Your task to perform on an android device: add a contact Image 0: 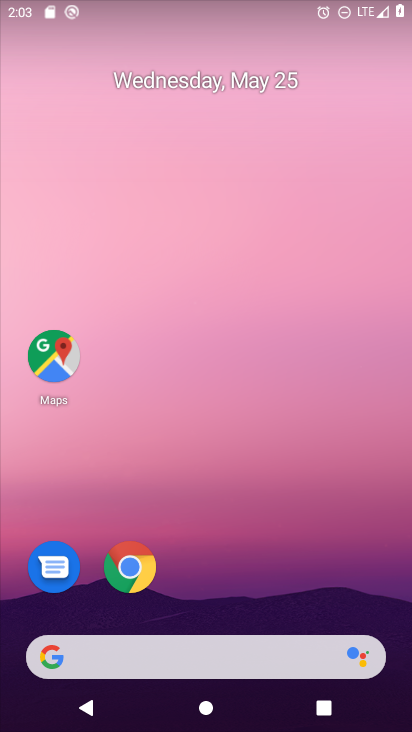
Step 0: drag from (395, 637) to (385, 315)
Your task to perform on an android device: add a contact Image 1: 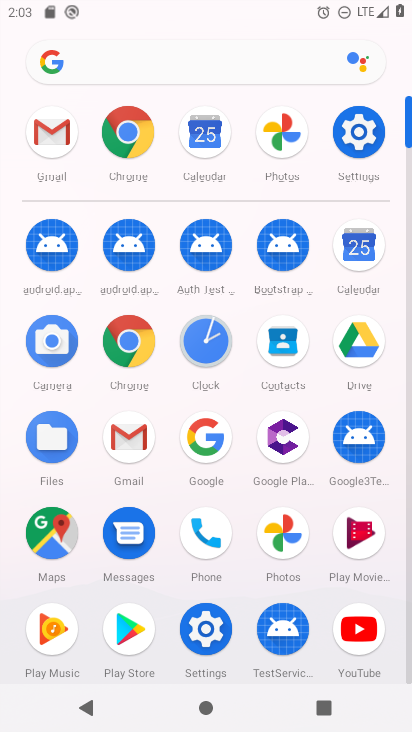
Step 1: click (286, 361)
Your task to perform on an android device: add a contact Image 2: 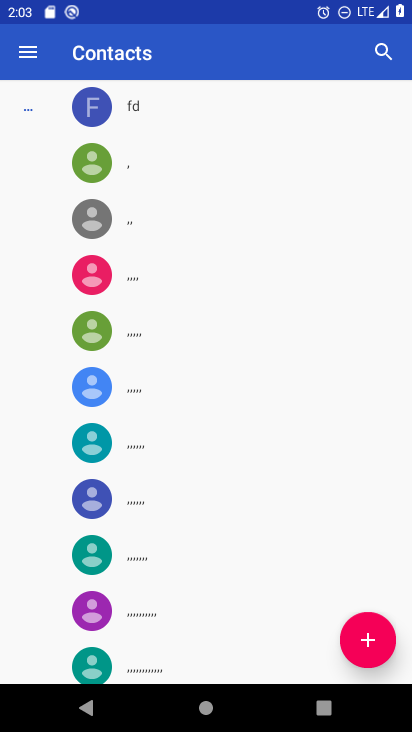
Step 2: click (361, 634)
Your task to perform on an android device: add a contact Image 3: 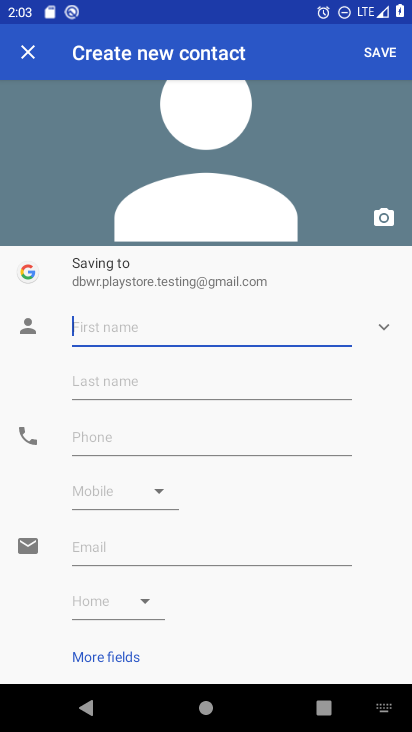
Step 3: click (215, 329)
Your task to perform on an android device: add a contact Image 4: 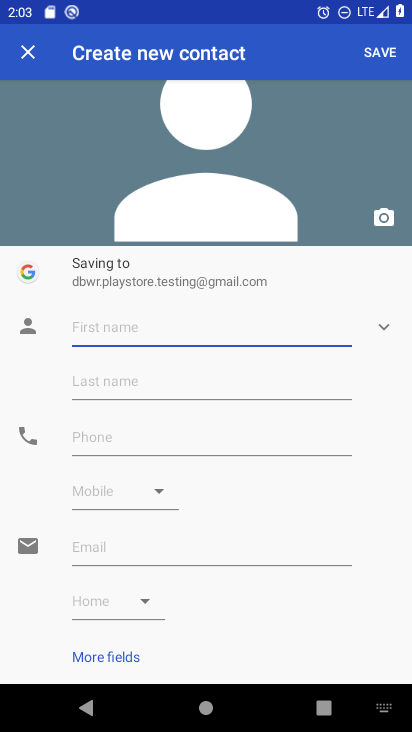
Step 4: type "fhghhgbhg"
Your task to perform on an android device: add a contact Image 5: 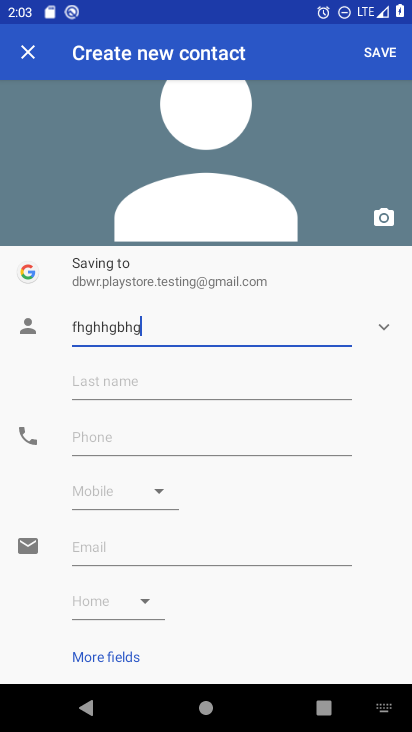
Step 5: click (174, 383)
Your task to perform on an android device: add a contact Image 6: 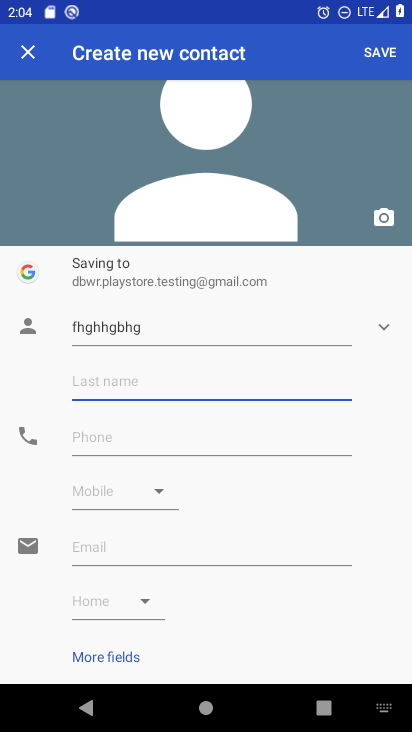
Step 6: type "ghbhjghjg"
Your task to perform on an android device: add a contact Image 7: 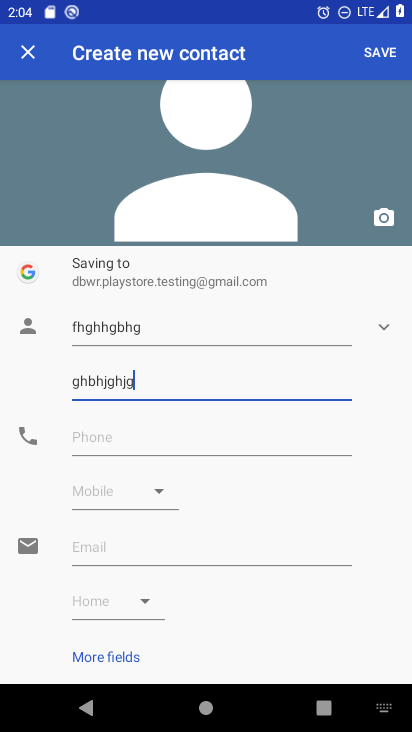
Step 7: click (160, 439)
Your task to perform on an android device: add a contact Image 8: 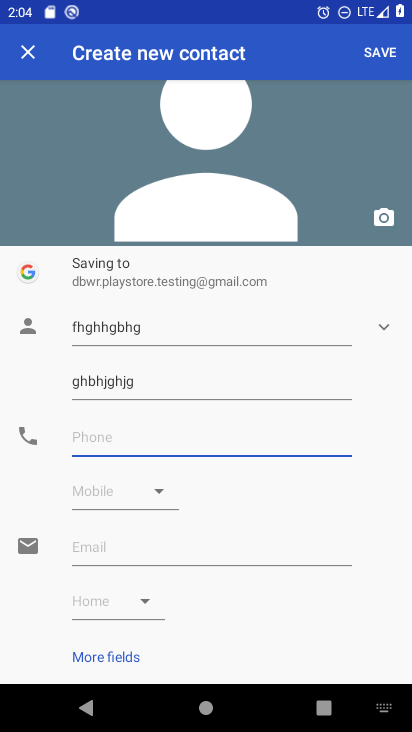
Step 8: type "76457547548347"
Your task to perform on an android device: add a contact Image 9: 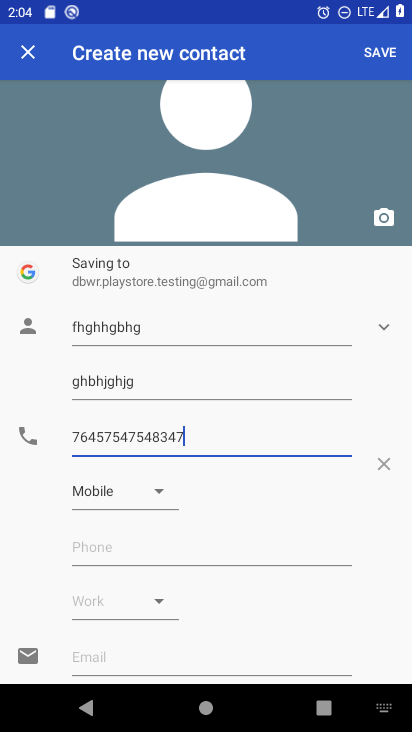
Step 9: click (390, 50)
Your task to perform on an android device: add a contact Image 10: 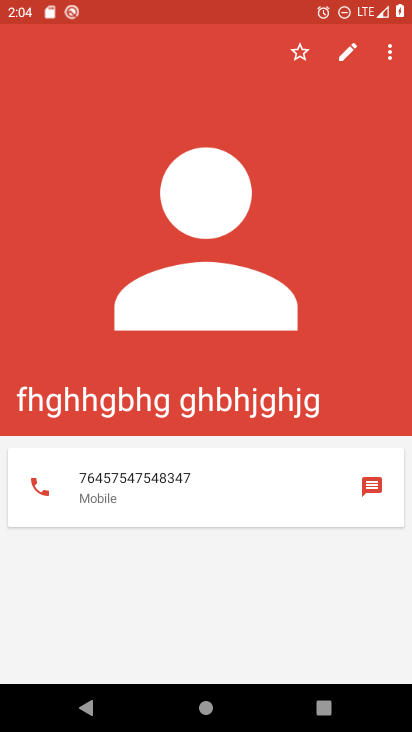
Step 10: task complete